Your task to perform on an android device: create a new album in the google photos Image 0: 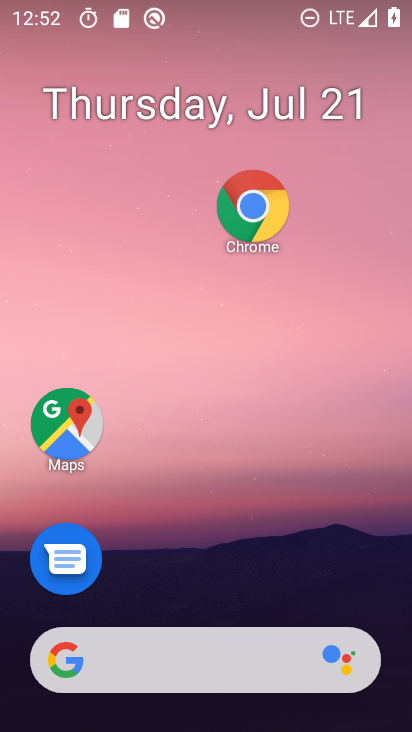
Step 0: drag from (219, 651) to (216, 274)
Your task to perform on an android device: create a new album in the google photos Image 1: 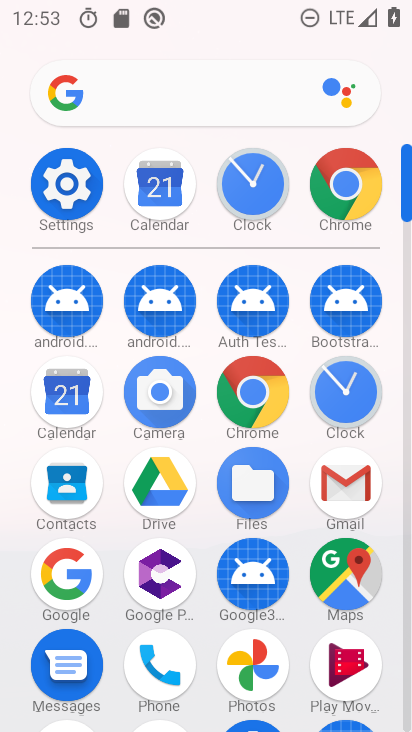
Step 1: drag from (200, 548) to (222, 253)
Your task to perform on an android device: create a new album in the google photos Image 2: 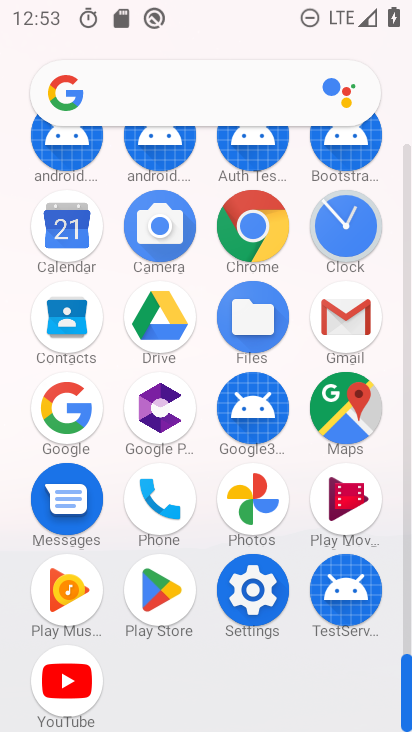
Step 2: click (258, 516)
Your task to perform on an android device: create a new album in the google photos Image 3: 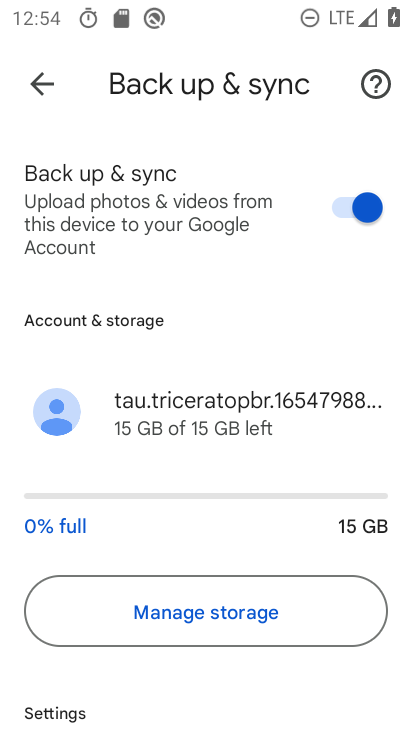
Step 3: task complete